Your task to perform on an android device: toggle airplane mode Image 0: 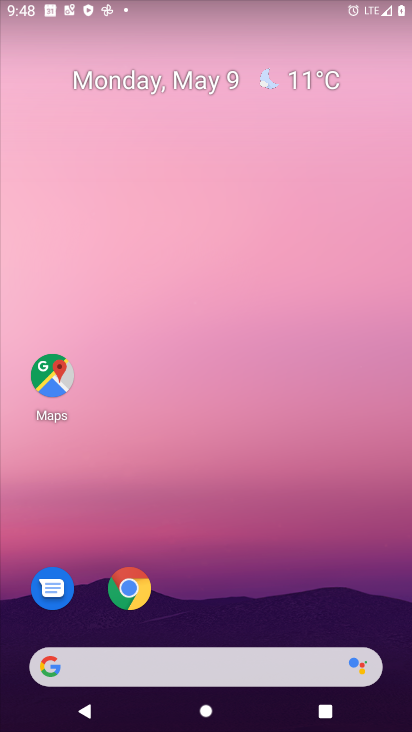
Step 0: drag from (252, 2) to (312, 318)
Your task to perform on an android device: toggle airplane mode Image 1: 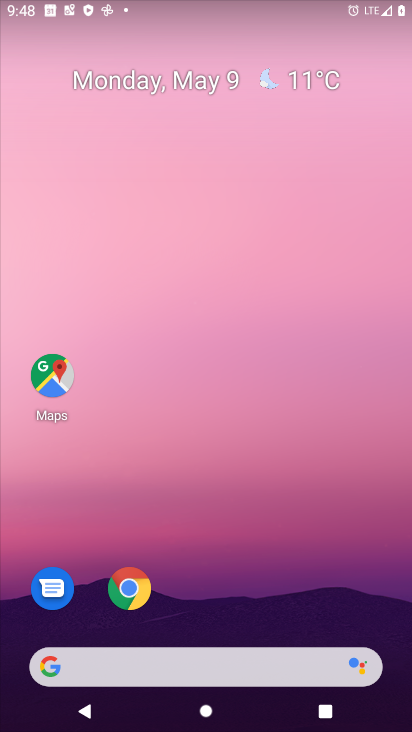
Step 1: drag from (280, 8) to (329, 560)
Your task to perform on an android device: toggle airplane mode Image 2: 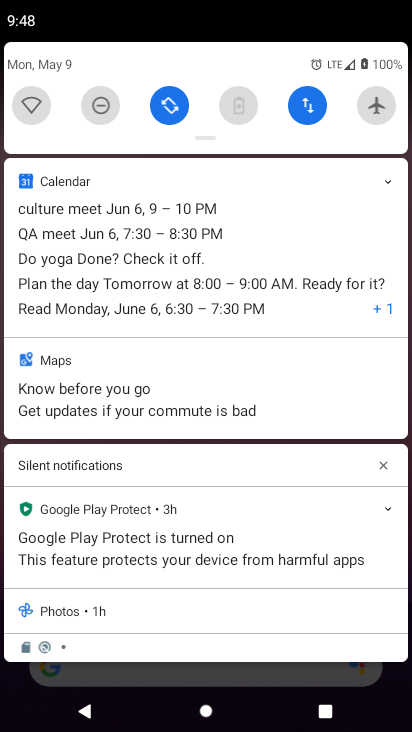
Step 2: click (373, 110)
Your task to perform on an android device: toggle airplane mode Image 3: 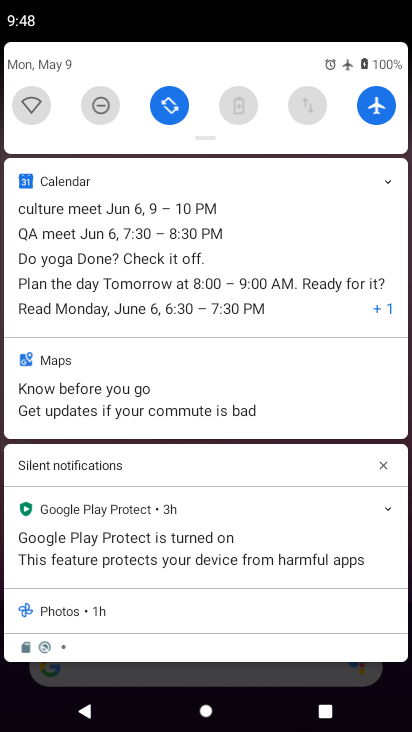
Step 3: task complete